Your task to perform on an android device: Do I have any events today? Image 0: 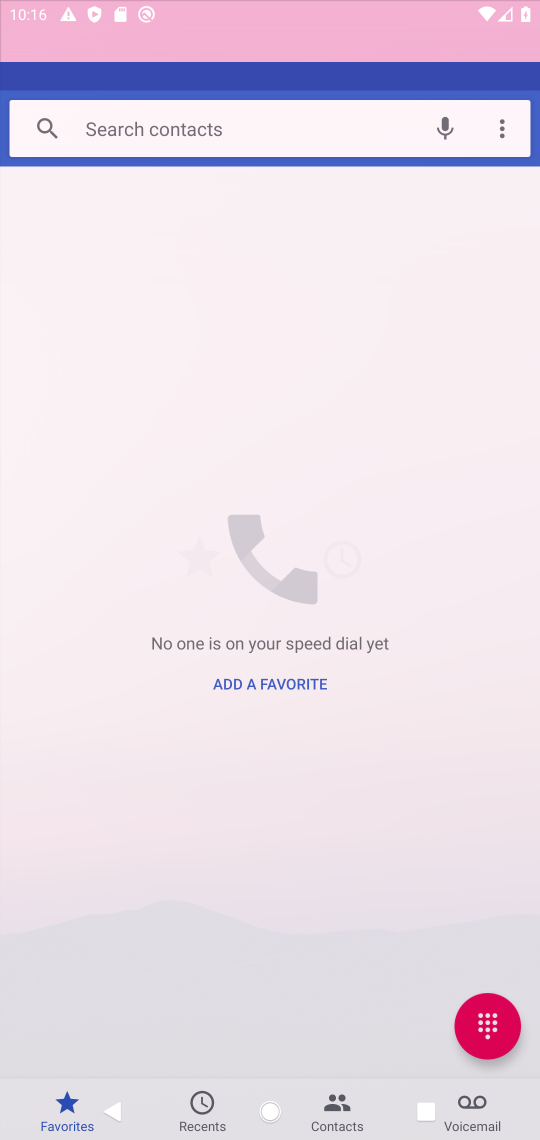
Step 0: click (236, 336)
Your task to perform on an android device: Do I have any events today? Image 1: 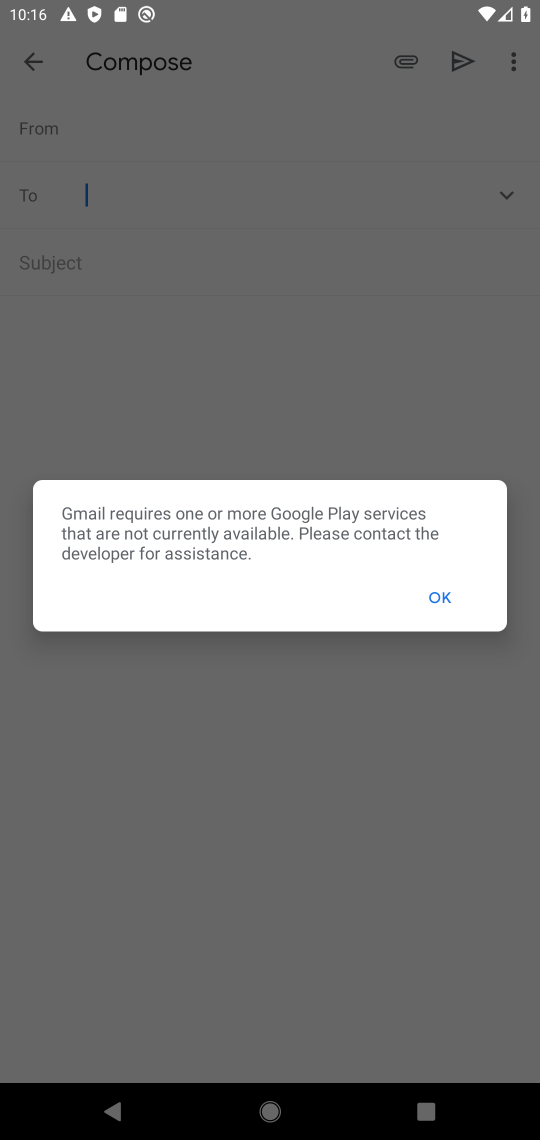
Step 1: press home button
Your task to perform on an android device: Do I have any events today? Image 2: 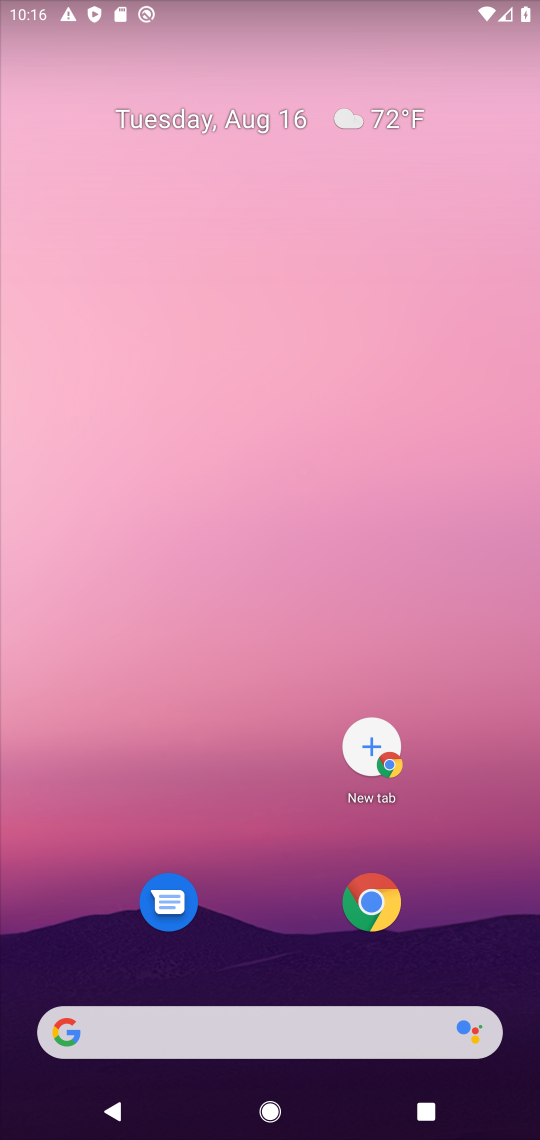
Step 2: drag from (325, 985) to (432, 214)
Your task to perform on an android device: Do I have any events today? Image 3: 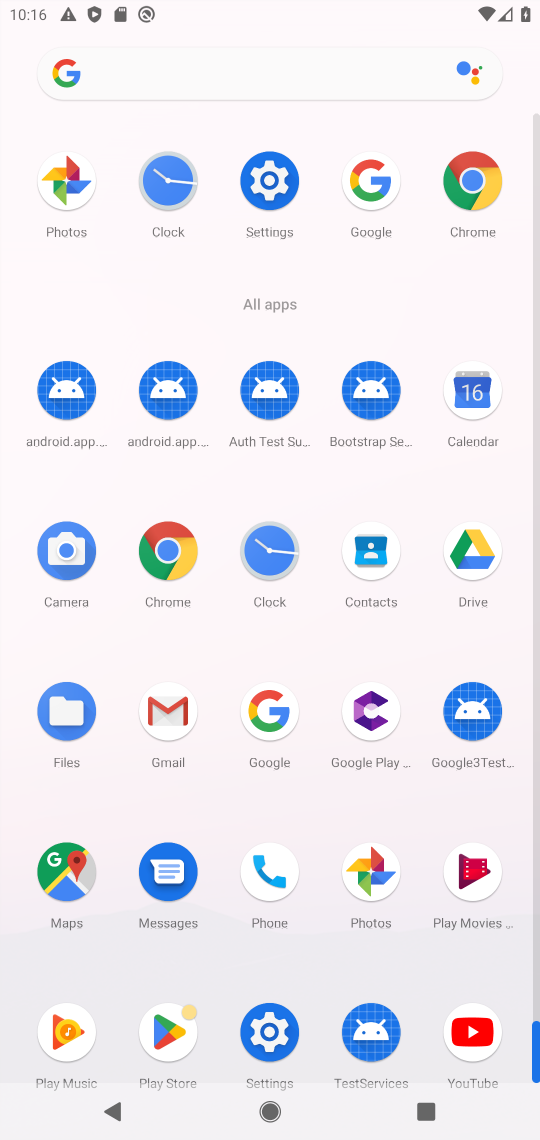
Step 3: click (461, 389)
Your task to perform on an android device: Do I have any events today? Image 4: 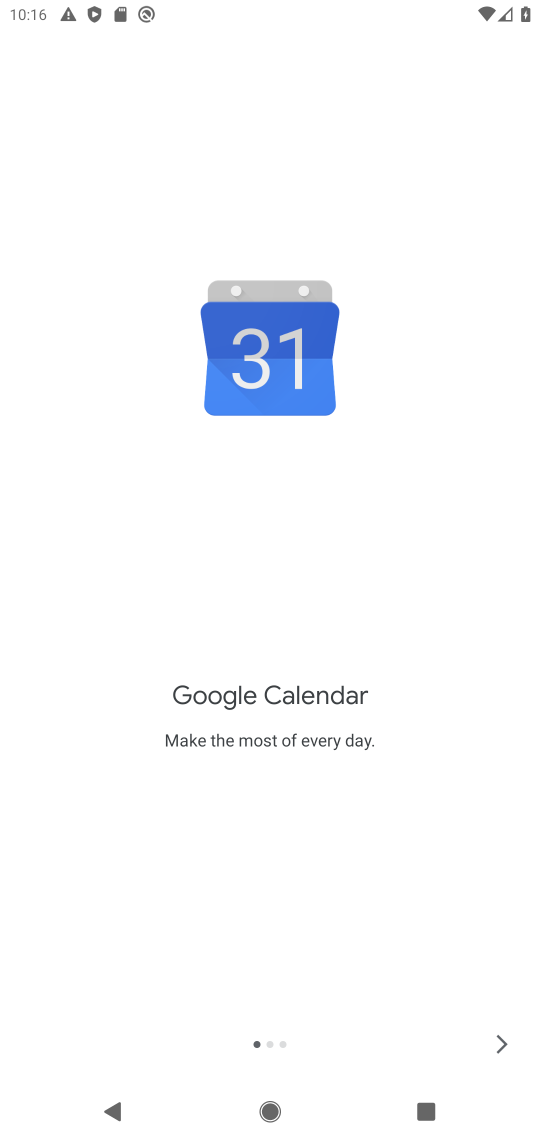
Step 4: click (494, 1030)
Your task to perform on an android device: Do I have any events today? Image 5: 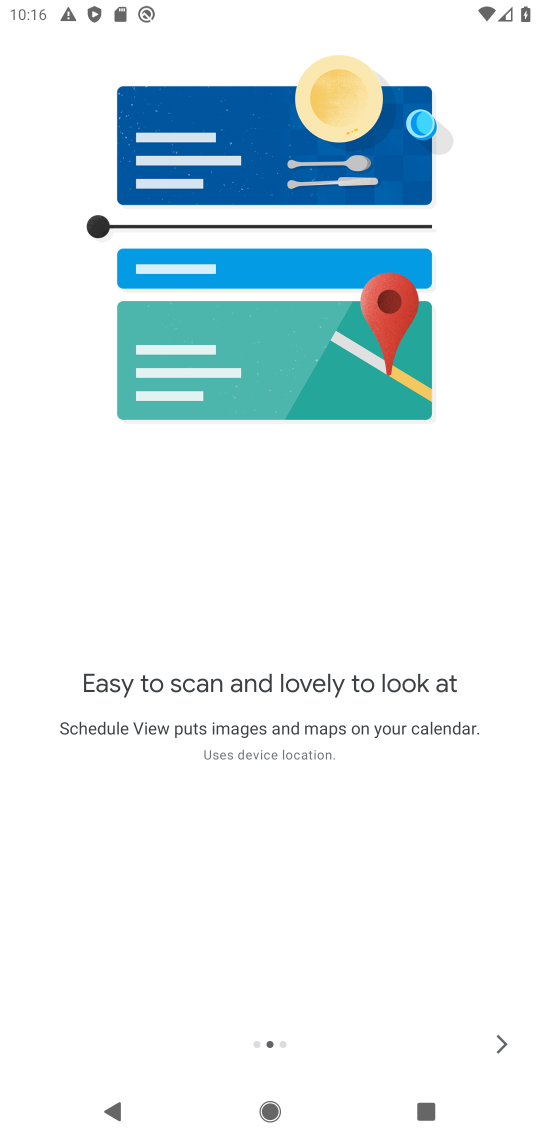
Step 5: click (494, 1030)
Your task to perform on an android device: Do I have any events today? Image 6: 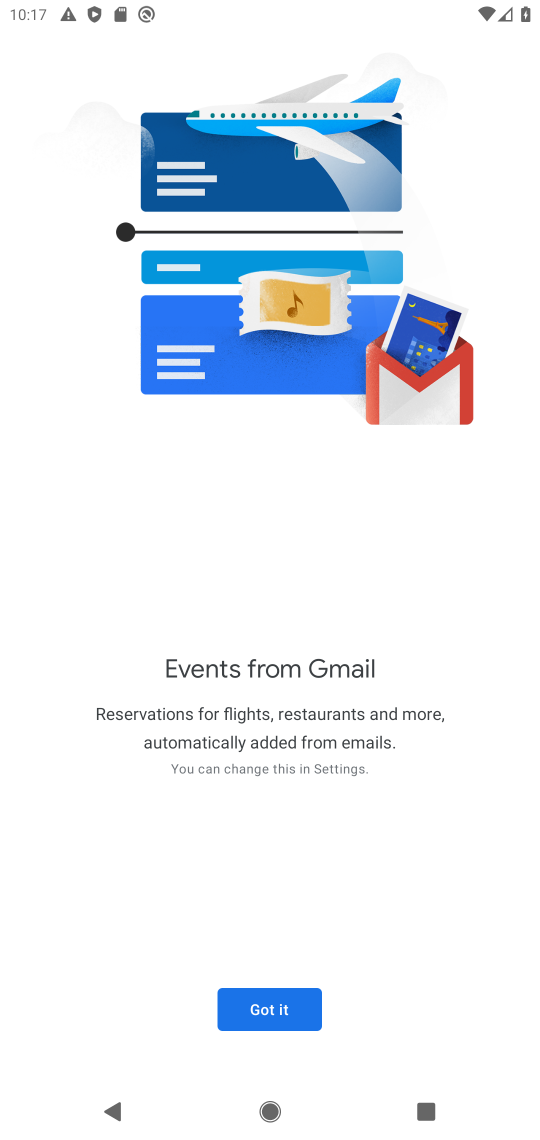
Step 6: click (250, 1012)
Your task to perform on an android device: Do I have any events today? Image 7: 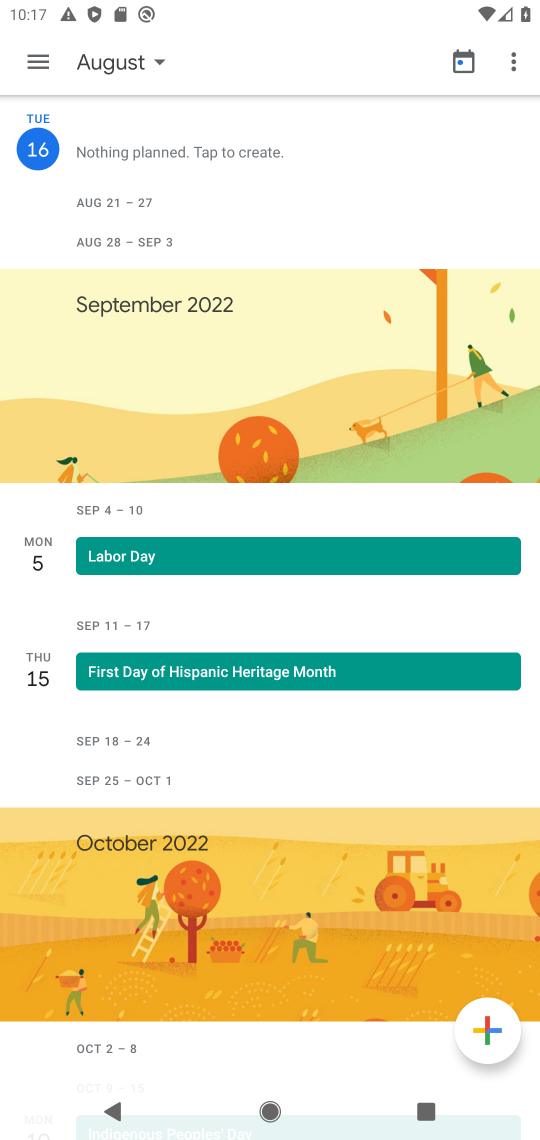
Step 7: task complete